Your task to perform on an android device: delete browsing data in the chrome app Image 0: 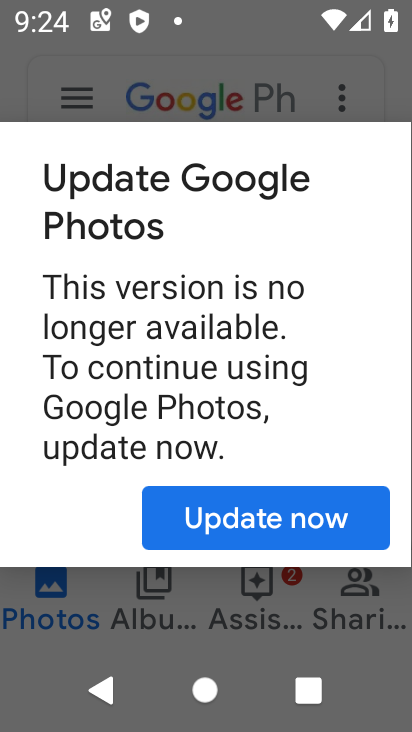
Step 0: click (222, 519)
Your task to perform on an android device: delete browsing data in the chrome app Image 1: 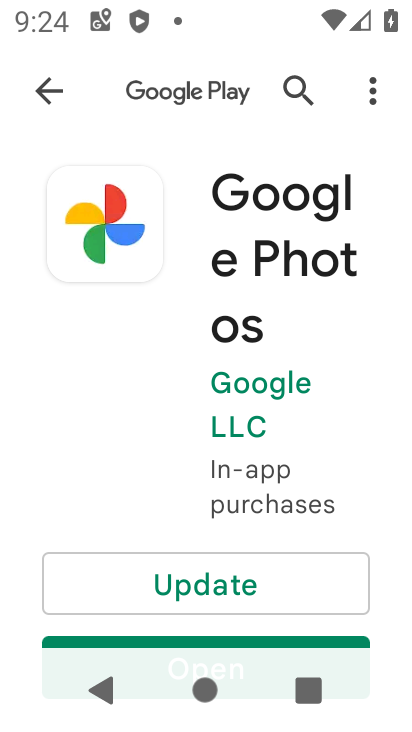
Step 1: drag from (120, 478) to (205, 70)
Your task to perform on an android device: delete browsing data in the chrome app Image 2: 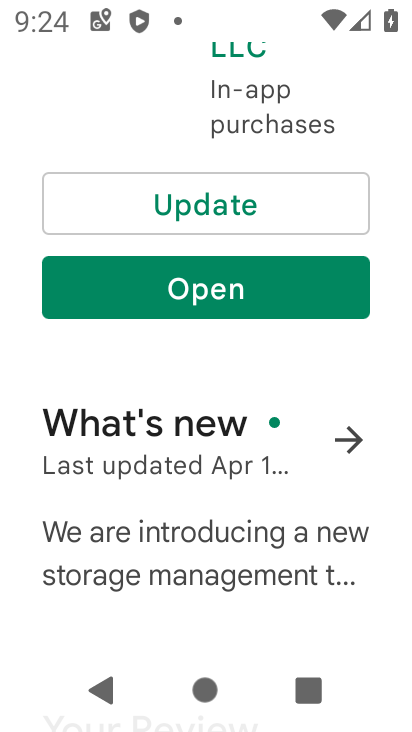
Step 2: click (288, 281)
Your task to perform on an android device: delete browsing data in the chrome app Image 3: 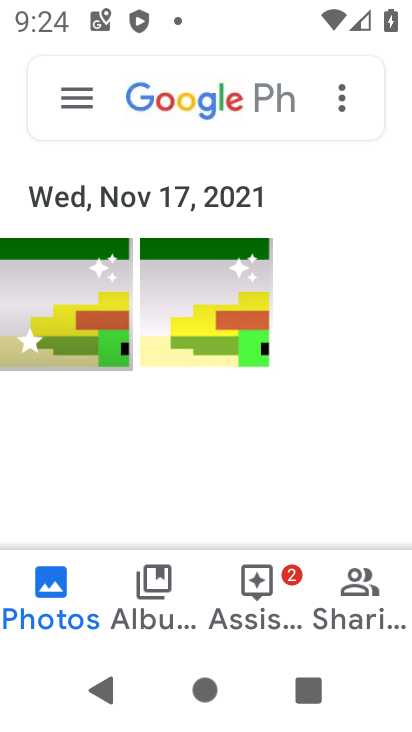
Step 3: press back button
Your task to perform on an android device: delete browsing data in the chrome app Image 4: 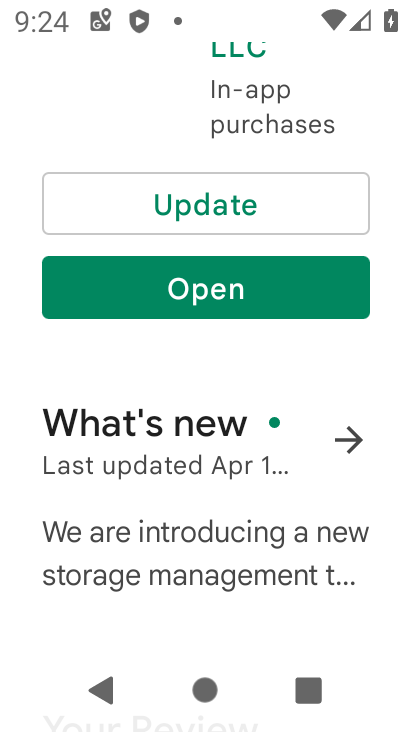
Step 4: press back button
Your task to perform on an android device: delete browsing data in the chrome app Image 5: 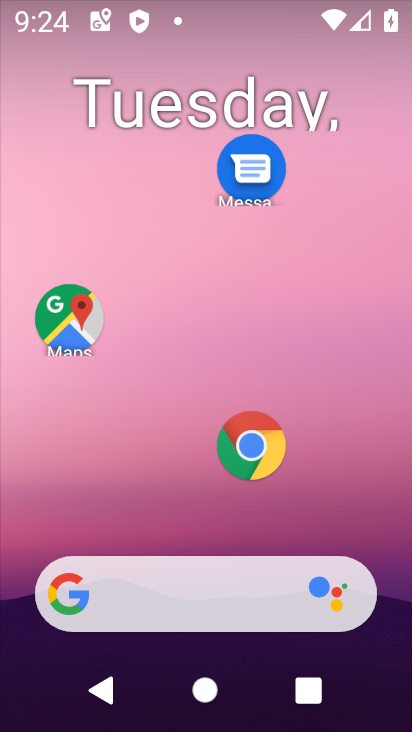
Step 5: click (248, 438)
Your task to perform on an android device: delete browsing data in the chrome app Image 6: 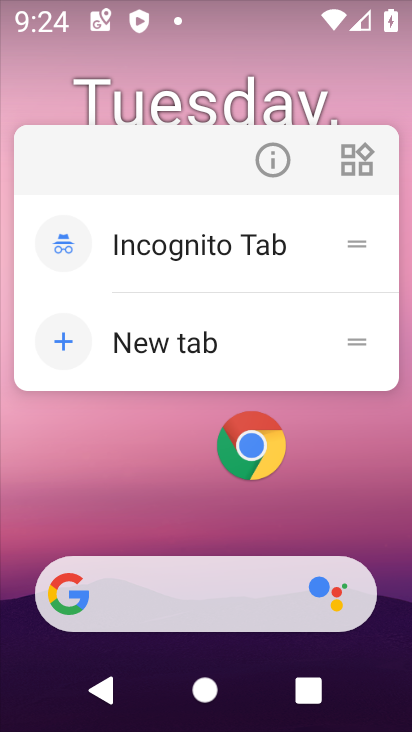
Step 6: click (255, 436)
Your task to perform on an android device: delete browsing data in the chrome app Image 7: 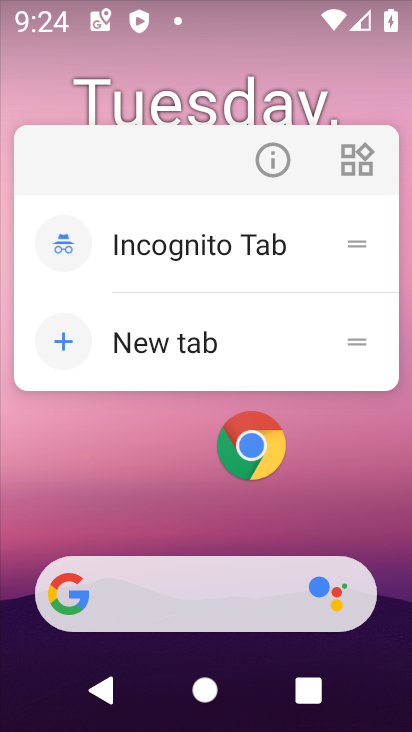
Step 7: click (264, 443)
Your task to perform on an android device: delete browsing data in the chrome app Image 8: 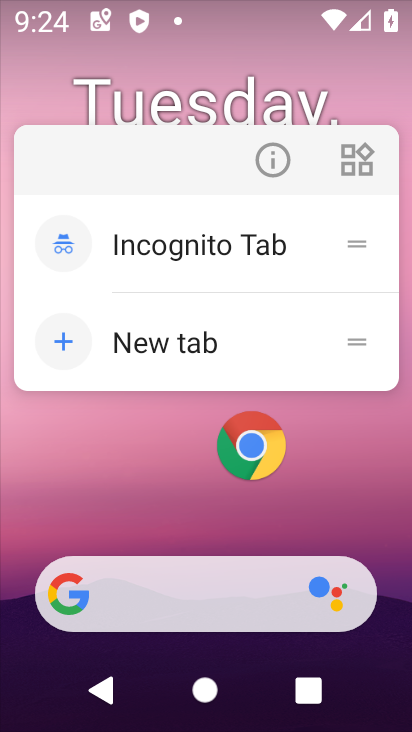
Step 8: click (252, 436)
Your task to perform on an android device: delete browsing data in the chrome app Image 9: 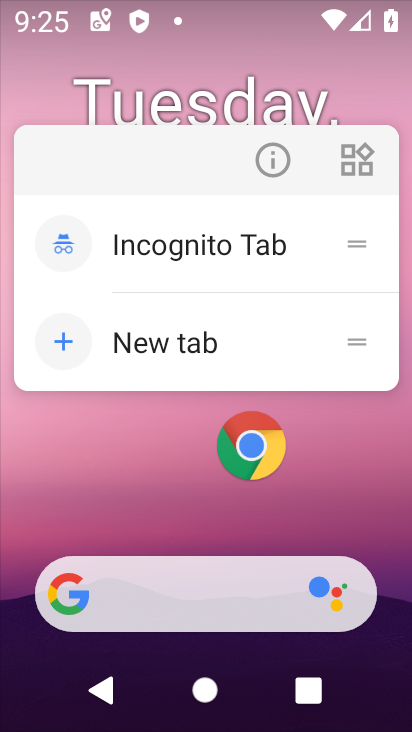
Step 9: click (253, 449)
Your task to perform on an android device: delete browsing data in the chrome app Image 10: 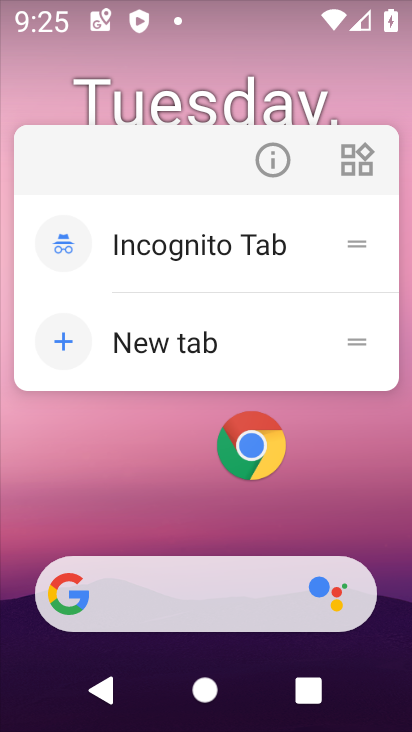
Step 10: click (252, 460)
Your task to perform on an android device: delete browsing data in the chrome app Image 11: 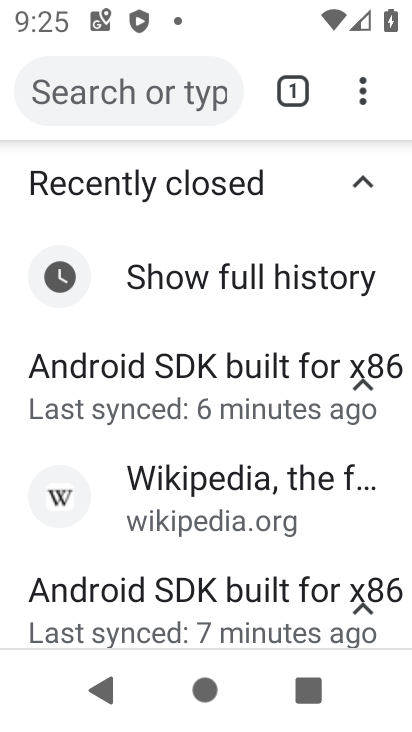
Step 11: drag from (365, 88) to (119, 230)
Your task to perform on an android device: delete browsing data in the chrome app Image 12: 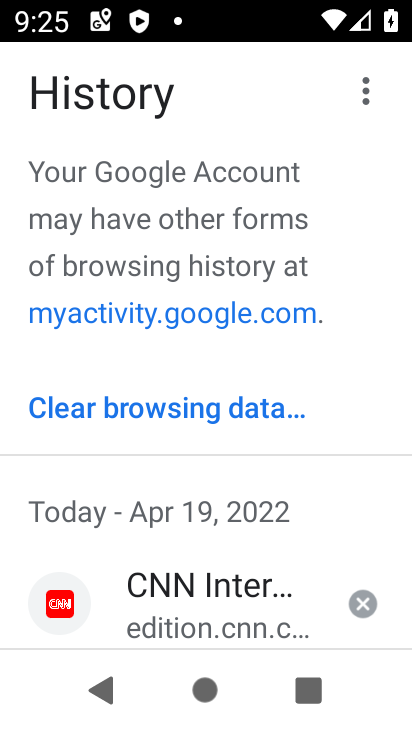
Step 12: click (156, 415)
Your task to perform on an android device: delete browsing data in the chrome app Image 13: 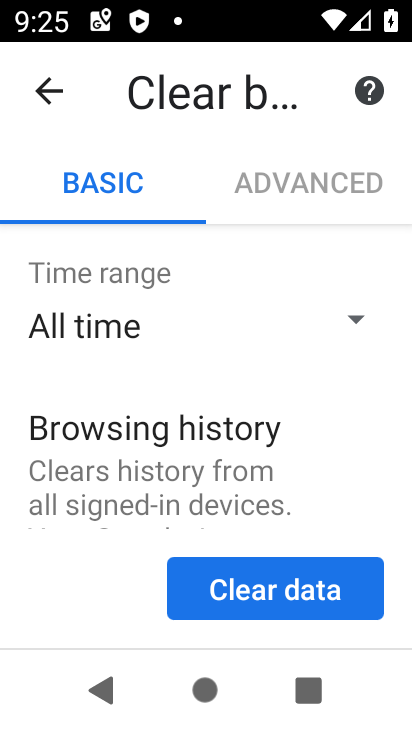
Step 13: click (292, 599)
Your task to perform on an android device: delete browsing data in the chrome app Image 14: 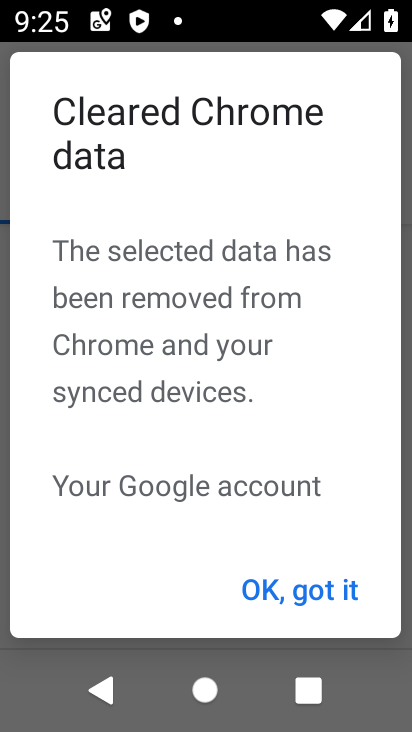
Step 14: click (311, 590)
Your task to perform on an android device: delete browsing data in the chrome app Image 15: 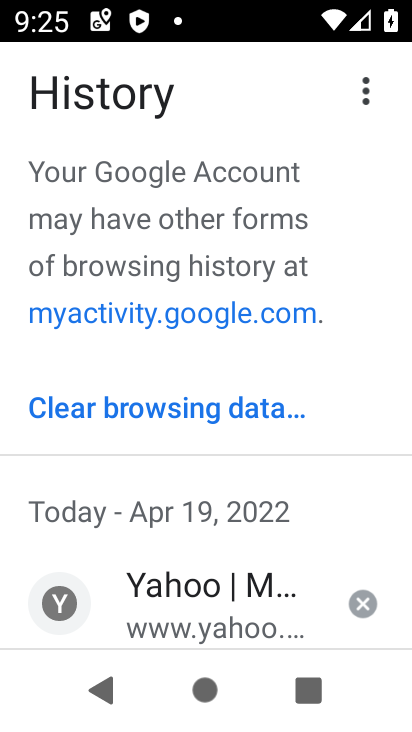
Step 15: task complete